Your task to perform on an android device: Open display settings Image 0: 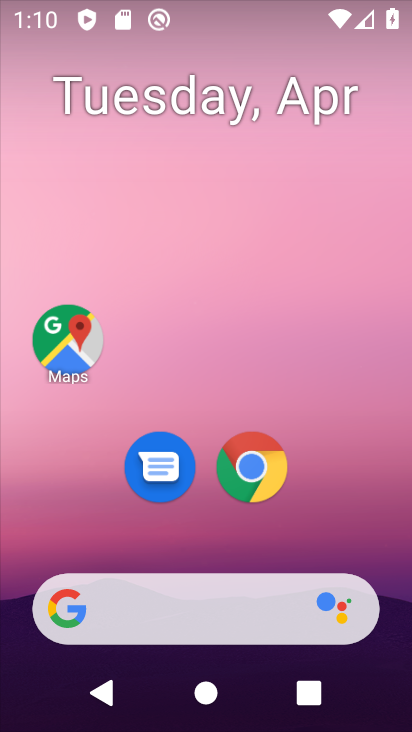
Step 0: drag from (378, 545) to (364, 155)
Your task to perform on an android device: Open display settings Image 1: 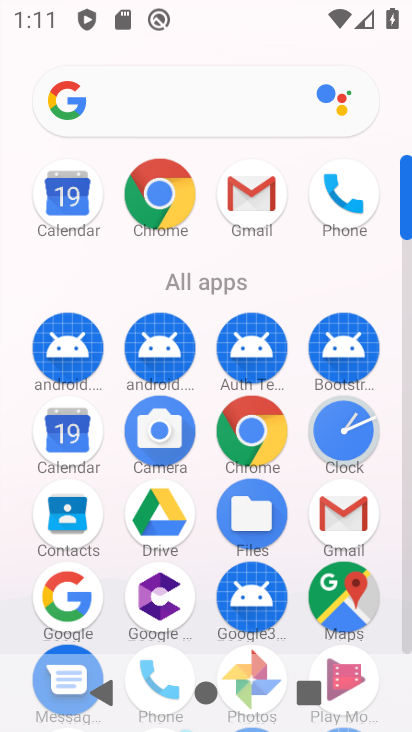
Step 1: drag from (393, 510) to (394, 275)
Your task to perform on an android device: Open display settings Image 2: 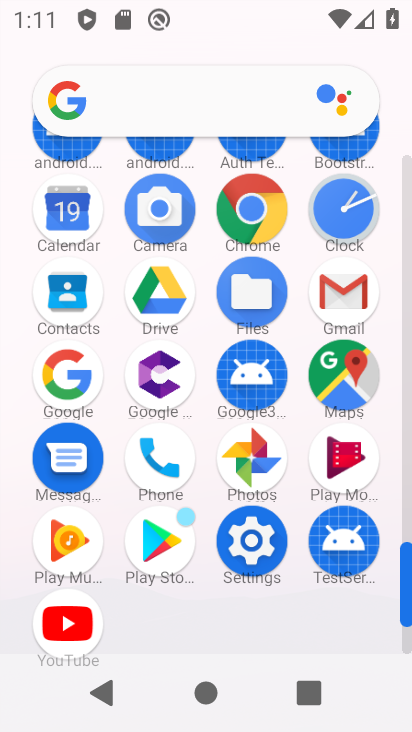
Step 2: click (248, 553)
Your task to perform on an android device: Open display settings Image 3: 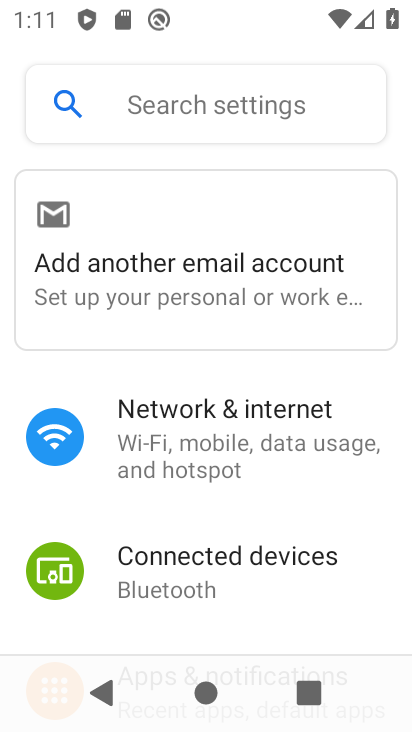
Step 3: drag from (375, 578) to (376, 379)
Your task to perform on an android device: Open display settings Image 4: 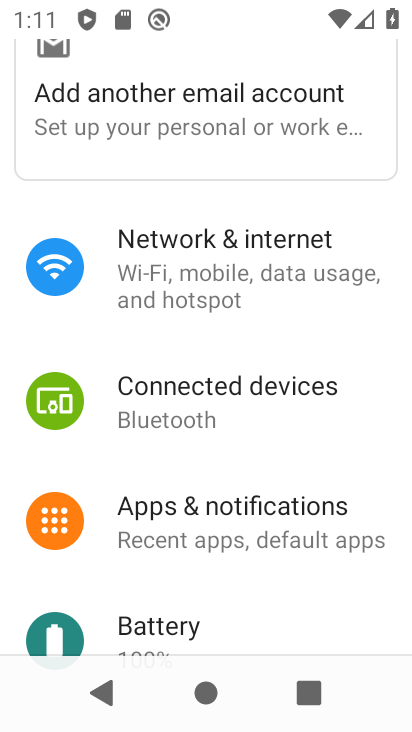
Step 4: drag from (364, 578) to (369, 328)
Your task to perform on an android device: Open display settings Image 5: 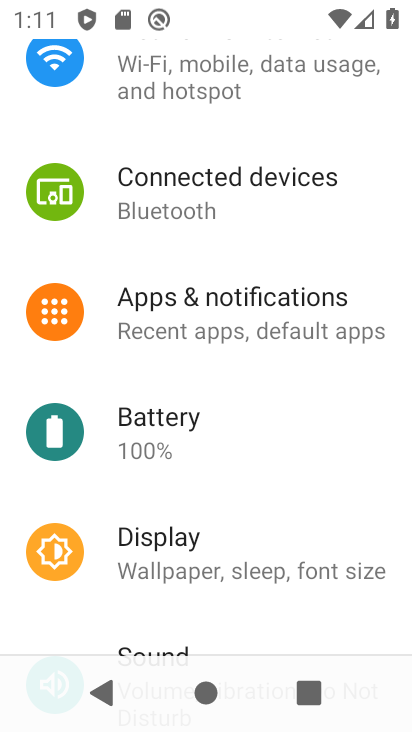
Step 5: click (161, 548)
Your task to perform on an android device: Open display settings Image 6: 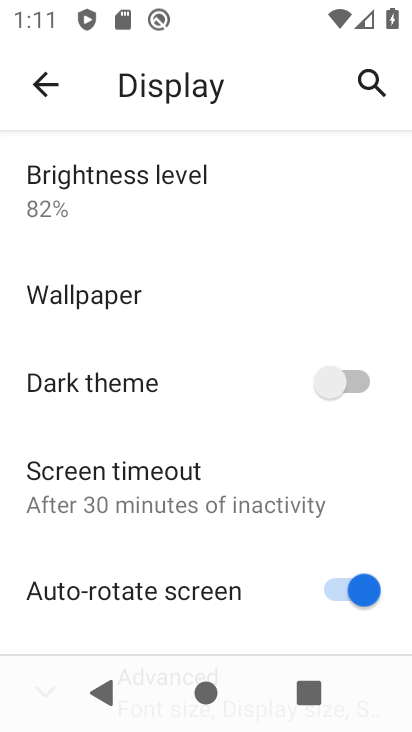
Step 6: drag from (270, 551) to (253, 268)
Your task to perform on an android device: Open display settings Image 7: 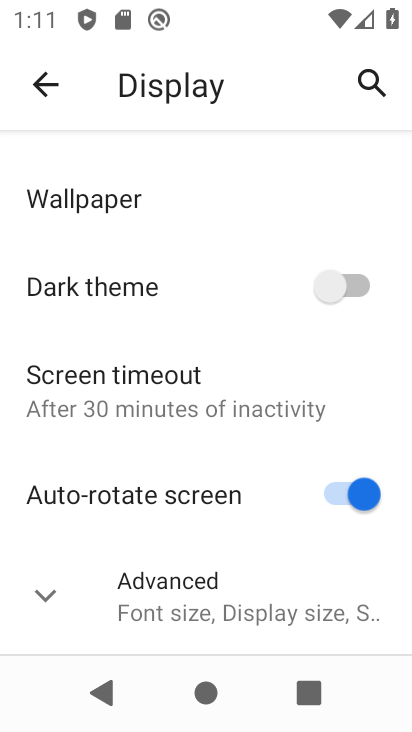
Step 7: click (183, 601)
Your task to perform on an android device: Open display settings Image 8: 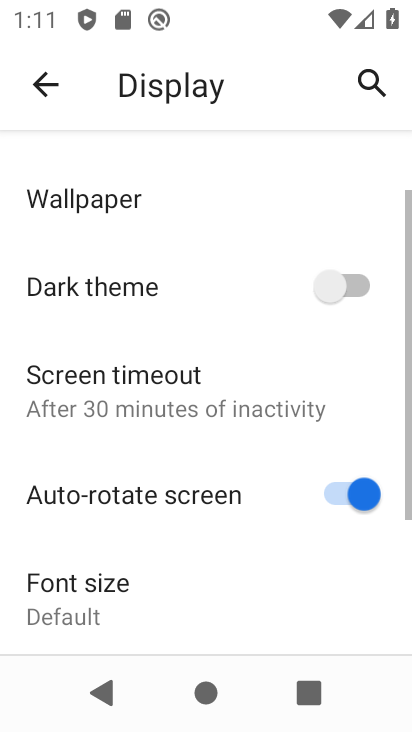
Step 8: task complete